Your task to perform on an android device: Search for sushi restaurants on Maps Image 0: 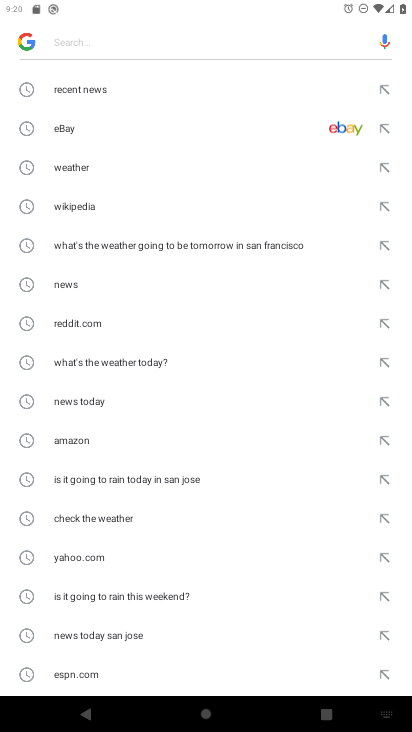
Step 0: press home button
Your task to perform on an android device: Search for sushi restaurants on Maps Image 1: 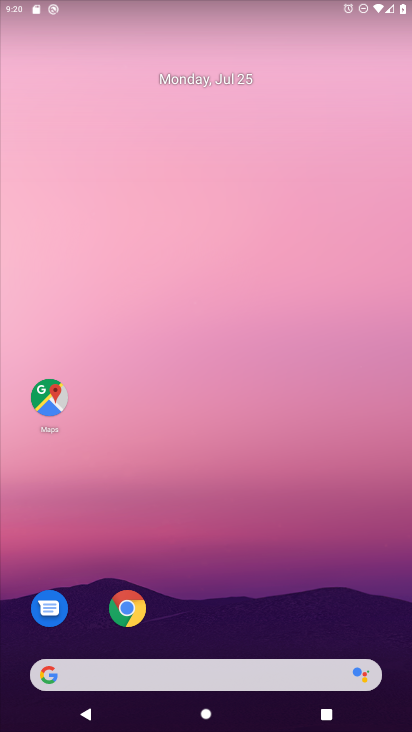
Step 1: click (54, 396)
Your task to perform on an android device: Search for sushi restaurants on Maps Image 2: 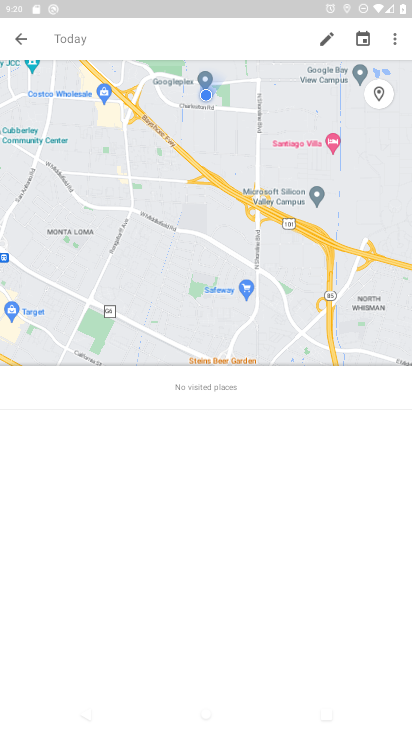
Step 2: click (30, 39)
Your task to perform on an android device: Search for sushi restaurants on Maps Image 3: 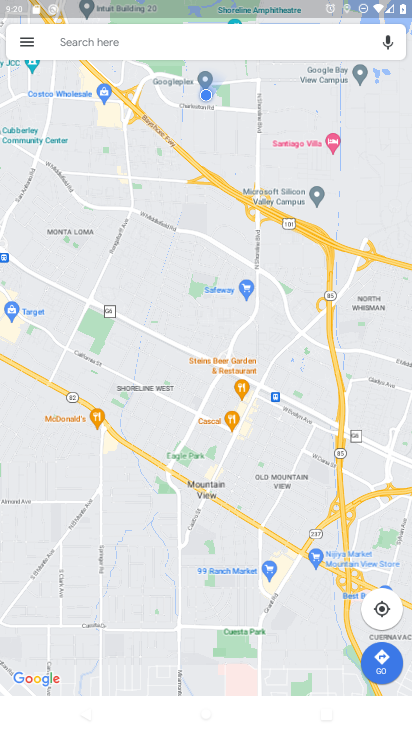
Step 3: click (108, 46)
Your task to perform on an android device: Search for sushi restaurants on Maps Image 4: 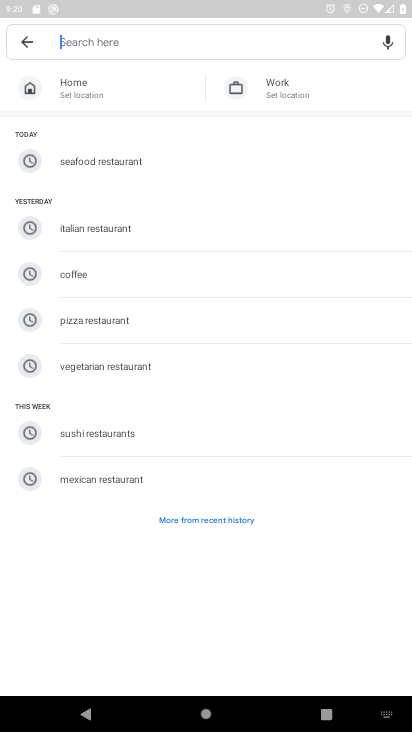
Step 4: click (117, 429)
Your task to perform on an android device: Search for sushi restaurants on Maps Image 5: 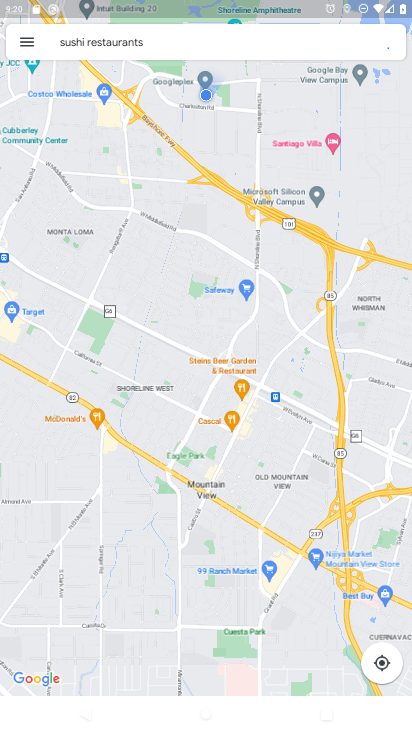
Step 5: click (222, 310)
Your task to perform on an android device: Search for sushi restaurants on Maps Image 6: 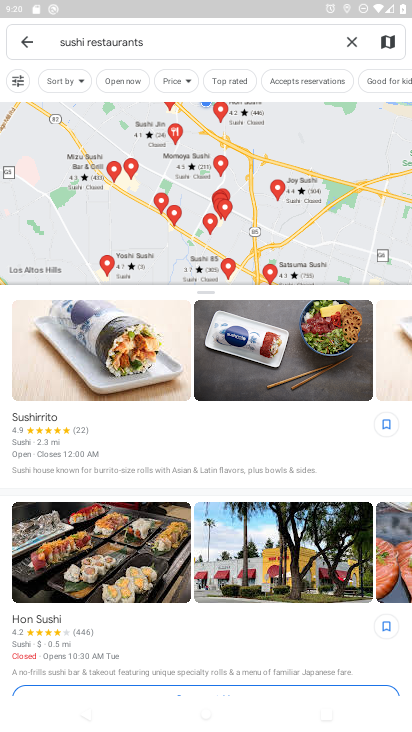
Step 6: task complete